Your task to perform on an android device: Open sound settings Image 0: 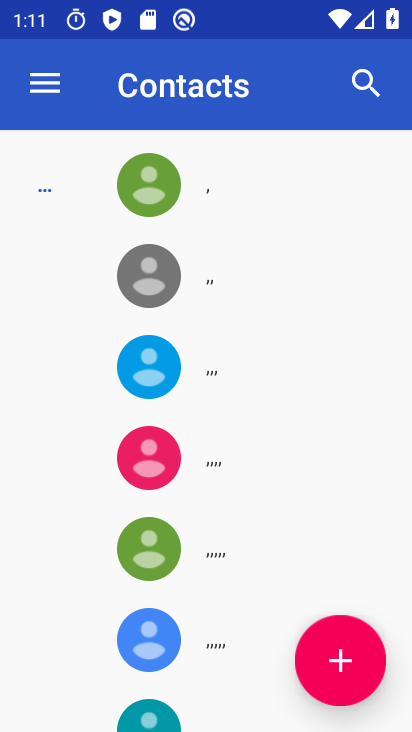
Step 0: press back button
Your task to perform on an android device: Open sound settings Image 1: 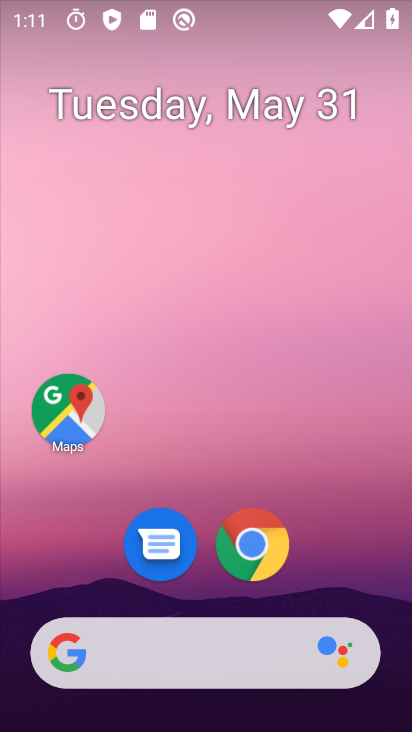
Step 1: drag from (210, 444) to (268, 31)
Your task to perform on an android device: Open sound settings Image 2: 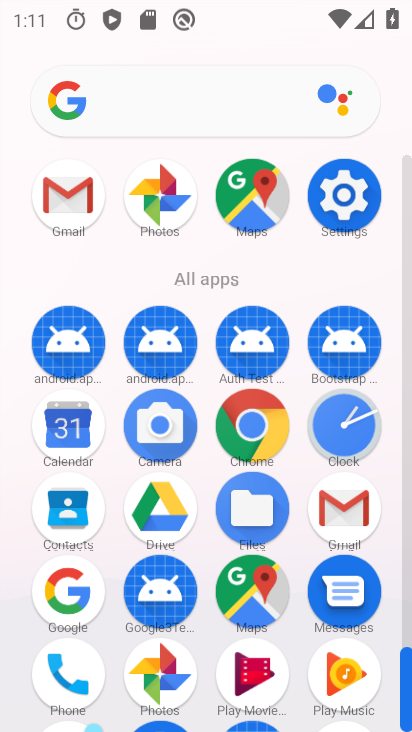
Step 2: click (356, 179)
Your task to perform on an android device: Open sound settings Image 3: 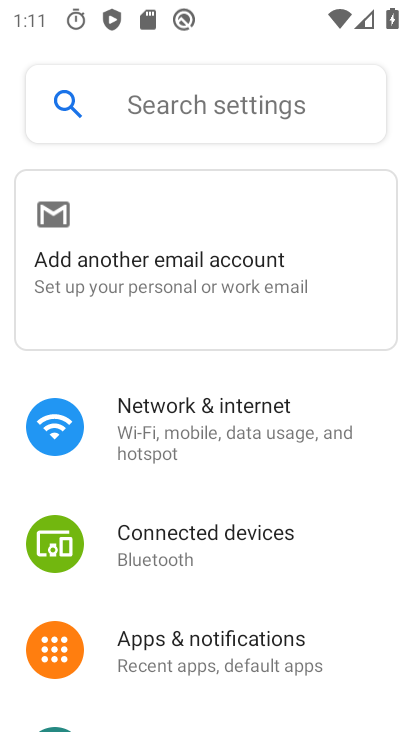
Step 3: drag from (190, 658) to (266, 79)
Your task to perform on an android device: Open sound settings Image 4: 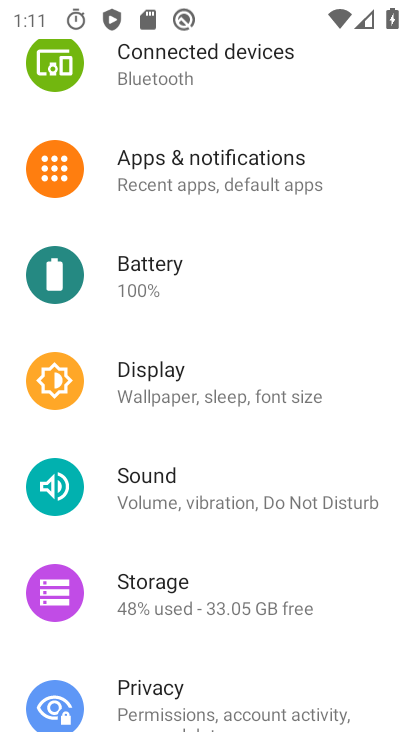
Step 4: click (167, 502)
Your task to perform on an android device: Open sound settings Image 5: 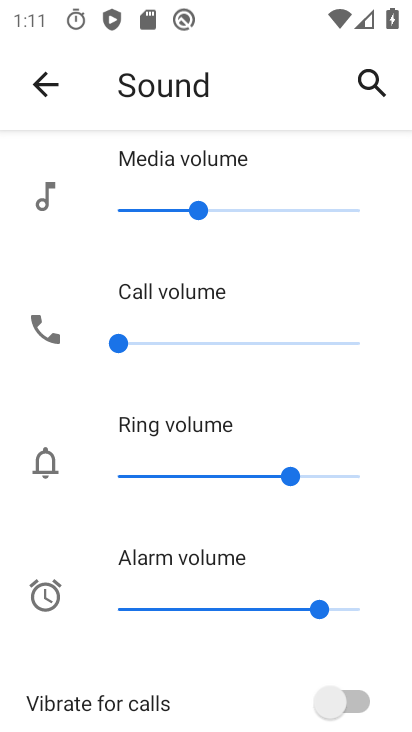
Step 5: task complete